Your task to perform on an android device: Go to battery settings Image 0: 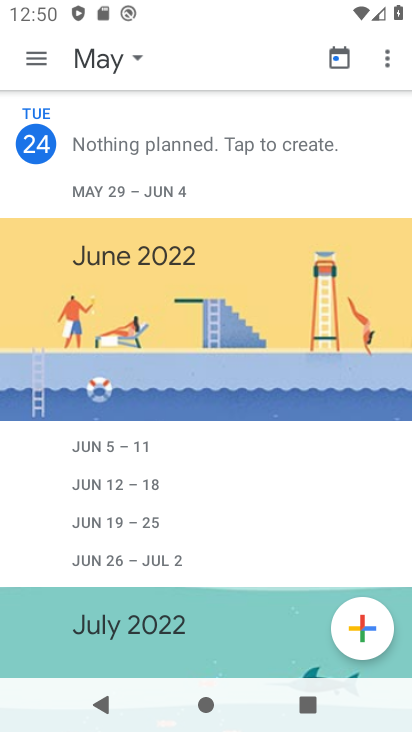
Step 0: press home button
Your task to perform on an android device: Go to battery settings Image 1: 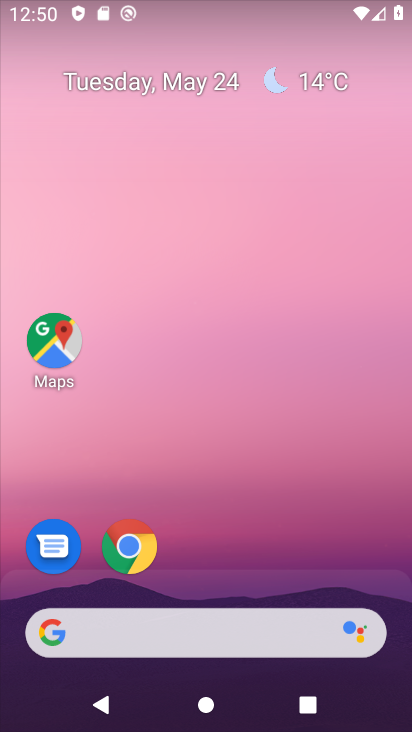
Step 1: drag from (268, 538) to (300, 64)
Your task to perform on an android device: Go to battery settings Image 2: 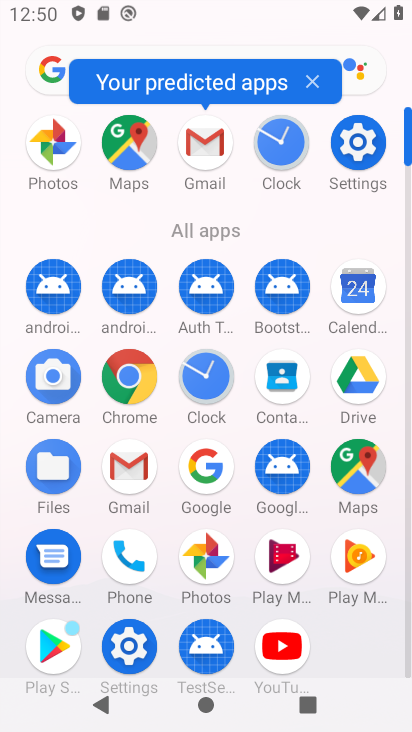
Step 2: click (356, 135)
Your task to perform on an android device: Go to battery settings Image 3: 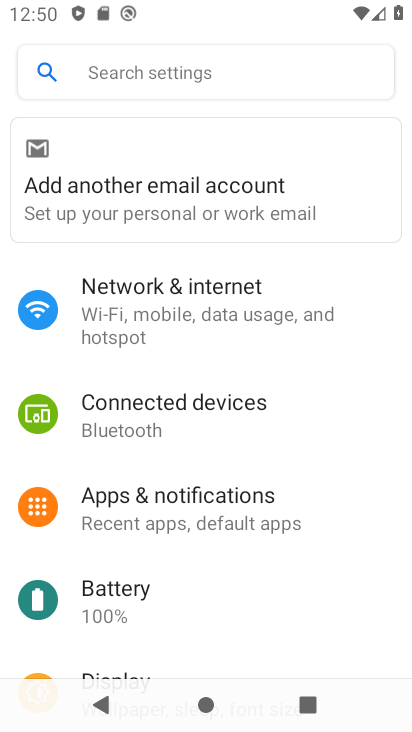
Step 3: click (109, 586)
Your task to perform on an android device: Go to battery settings Image 4: 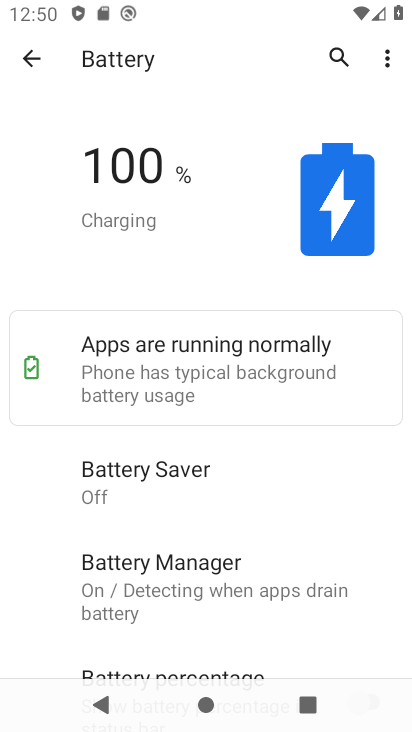
Step 4: task complete